Your task to perform on an android device: delete the emails in spam in the gmail app Image 0: 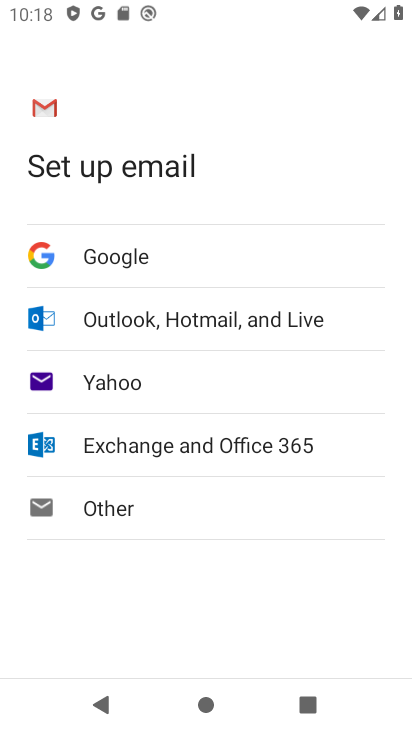
Step 0: press back button
Your task to perform on an android device: delete the emails in spam in the gmail app Image 1: 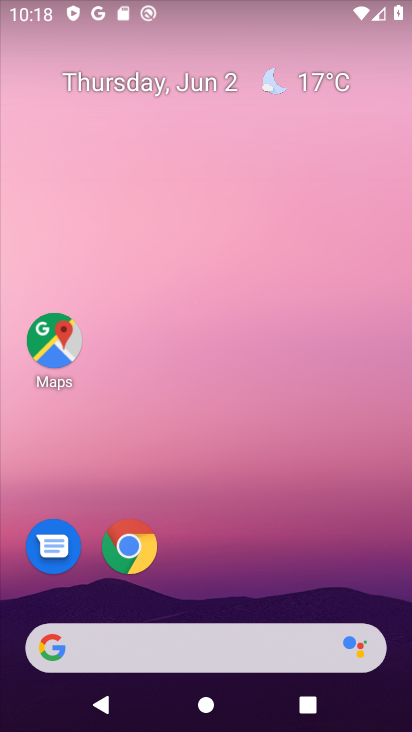
Step 1: drag from (266, 539) to (217, 15)
Your task to perform on an android device: delete the emails in spam in the gmail app Image 2: 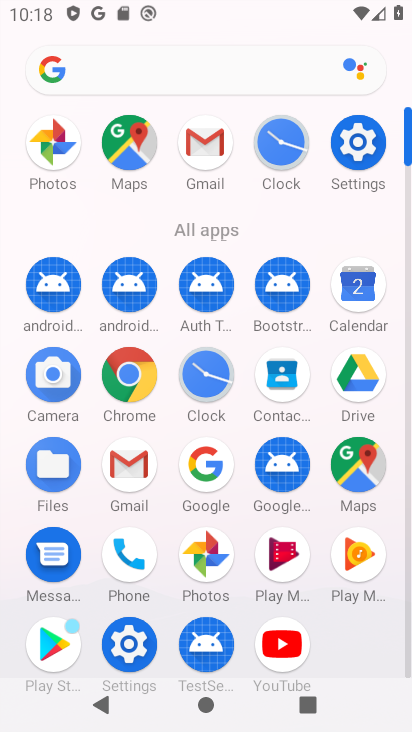
Step 2: drag from (5, 561) to (14, 267)
Your task to perform on an android device: delete the emails in spam in the gmail app Image 3: 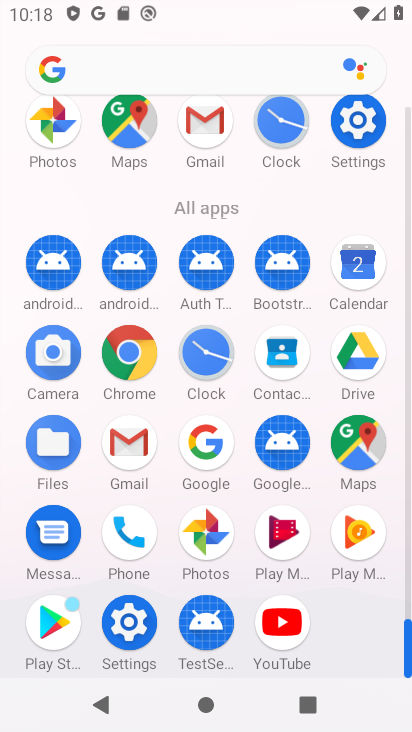
Step 3: click (127, 438)
Your task to perform on an android device: delete the emails in spam in the gmail app Image 4: 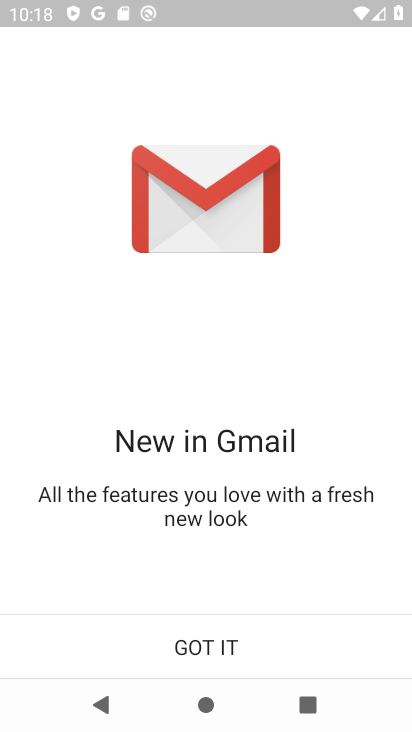
Step 4: click (216, 640)
Your task to perform on an android device: delete the emails in spam in the gmail app Image 5: 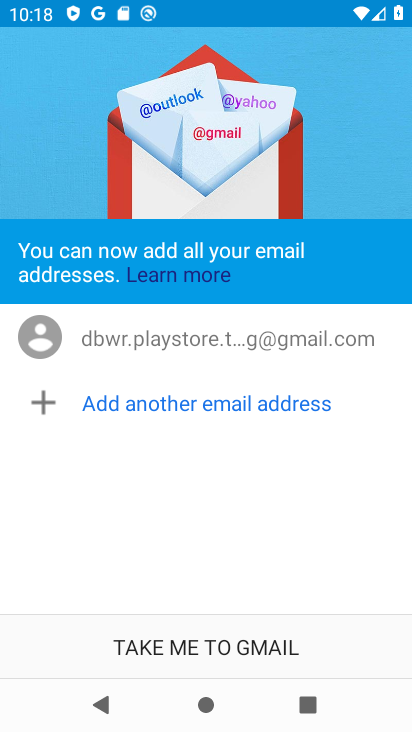
Step 5: click (196, 645)
Your task to perform on an android device: delete the emails in spam in the gmail app Image 6: 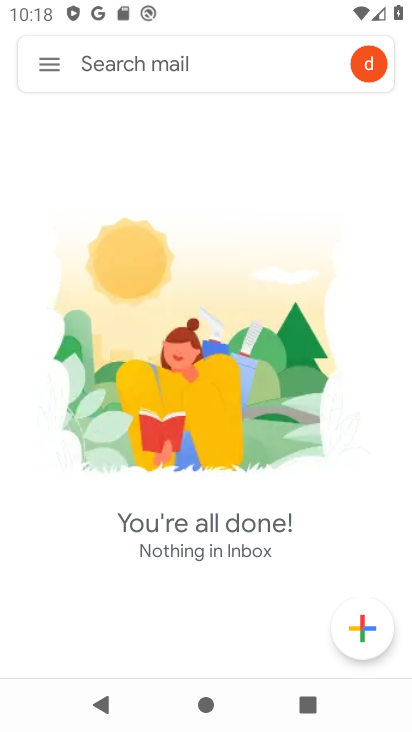
Step 6: click (47, 58)
Your task to perform on an android device: delete the emails in spam in the gmail app Image 7: 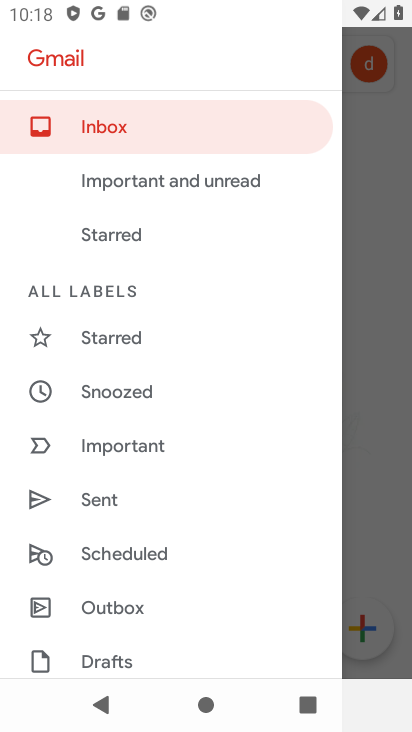
Step 7: drag from (205, 599) to (194, 205)
Your task to perform on an android device: delete the emails in spam in the gmail app Image 8: 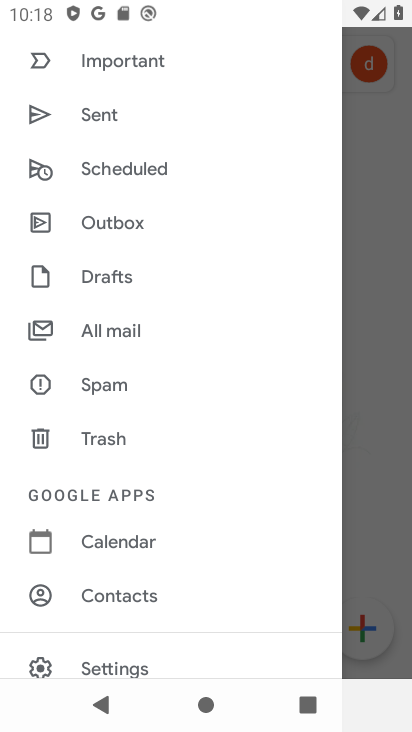
Step 8: click (133, 381)
Your task to perform on an android device: delete the emails in spam in the gmail app Image 9: 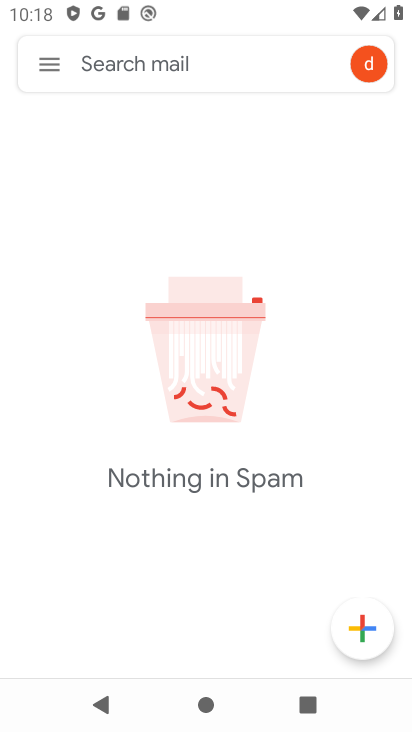
Step 9: click (43, 64)
Your task to perform on an android device: delete the emails in spam in the gmail app Image 10: 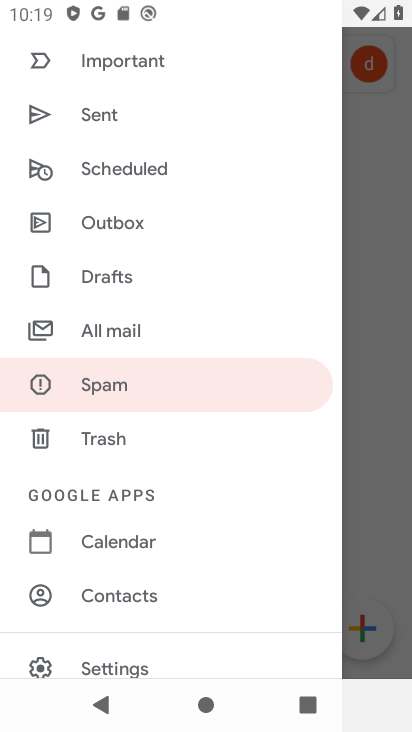
Step 10: click (98, 383)
Your task to perform on an android device: delete the emails in spam in the gmail app Image 11: 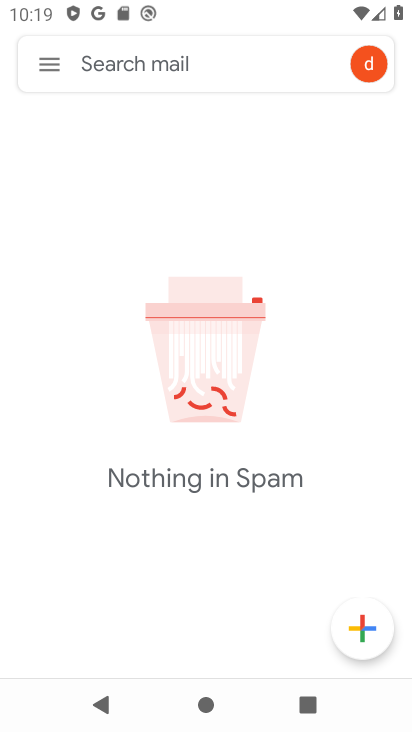
Step 11: task complete